Your task to perform on an android device: Open Google Image 0: 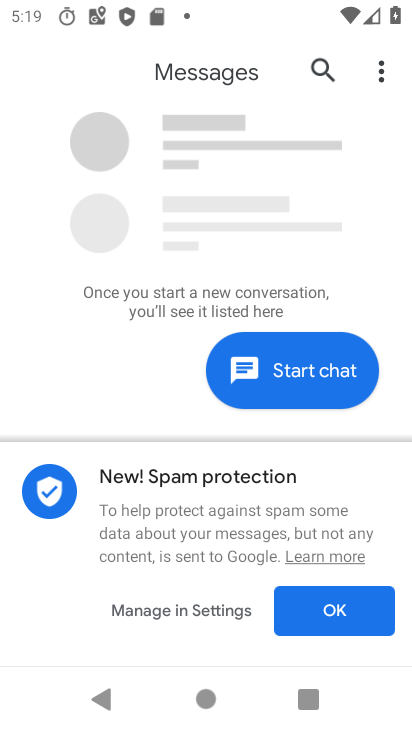
Step 0: press home button
Your task to perform on an android device: Open Google Image 1: 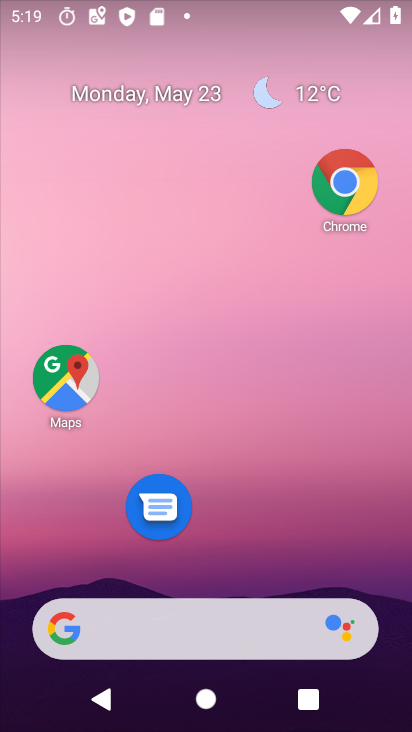
Step 1: click (207, 640)
Your task to perform on an android device: Open Google Image 2: 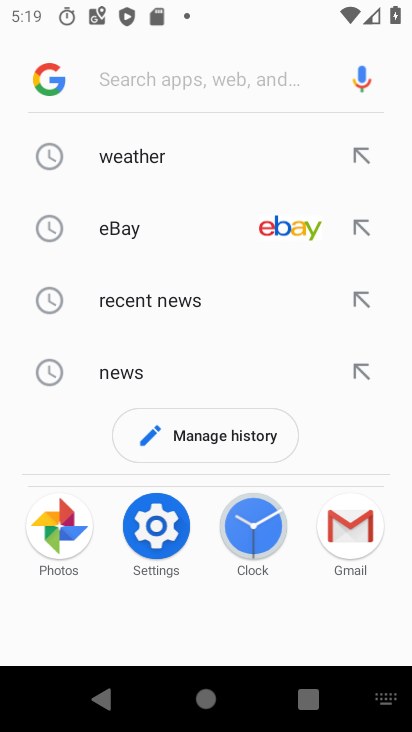
Step 2: click (45, 94)
Your task to perform on an android device: Open Google Image 3: 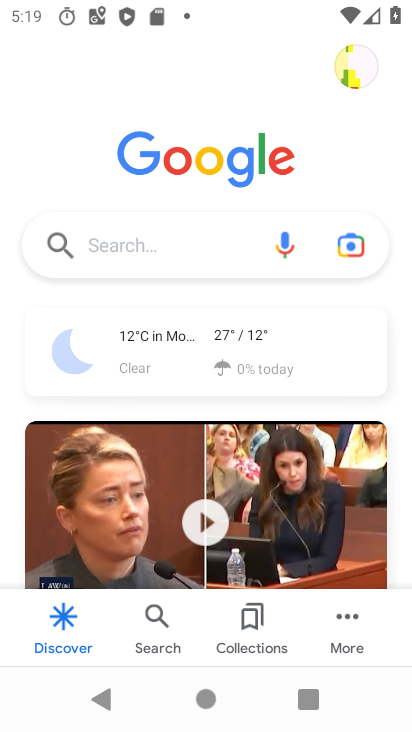
Step 3: task complete